Your task to perform on an android device: open app "The Home Depot" Image 0: 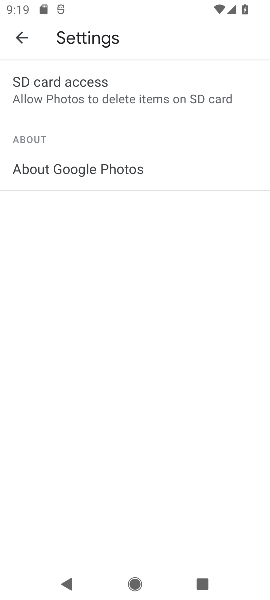
Step 0: press back button
Your task to perform on an android device: open app "The Home Depot" Image 1: 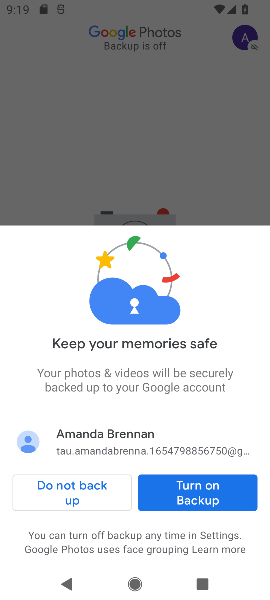
Step 1: press home button
Your task to perform on an android device: open app "The Home Depot" Image 2: 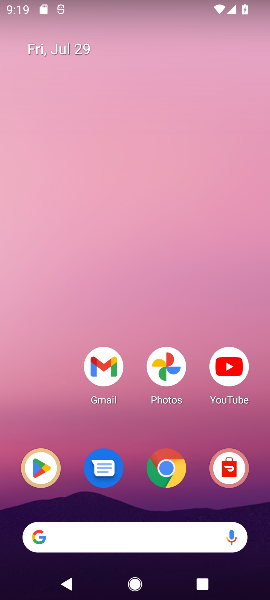
Step 2: click (36, 473)
Your task to perform on an android device: open app "The Home Depot" Image 3: 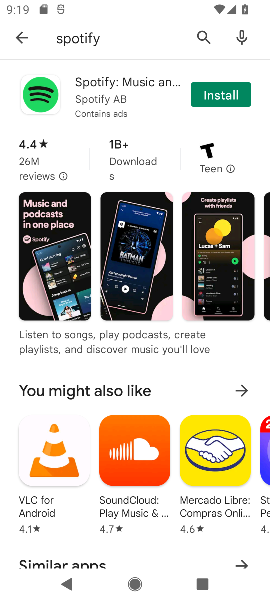
Step 3: click (205, 34)
Your task to perform on an android device: open app "The Home Depot" Image 4: 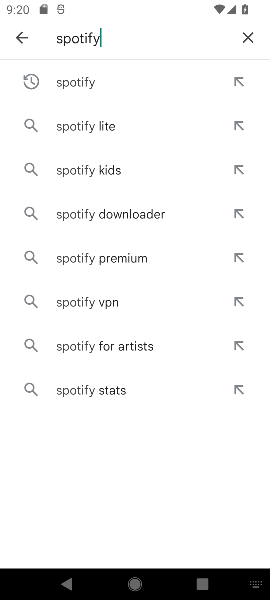
Step 4: click (255, 33)
Your task to perform on an android device: open app "The Home Depot" Image 5: 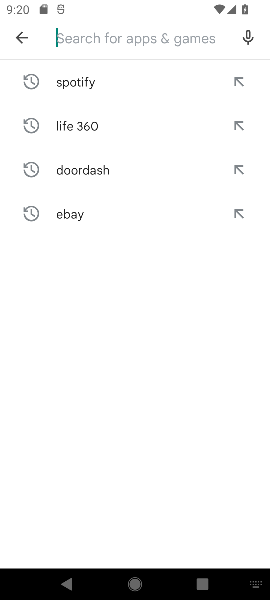
Step 5: click (99, 45)
Your task to perform on an android device: open app "The Home Depot" Image 6: 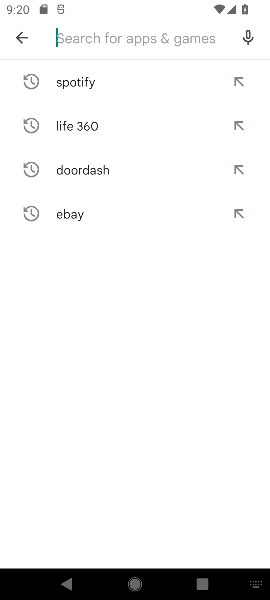
Step 6: type "the home depot"
Your task to perform on an android device: open app "The Home Depot" Image 7: 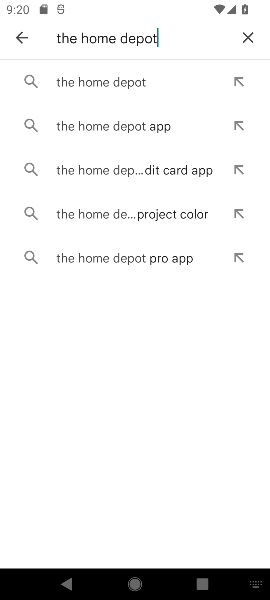
Step 7: click (117, 86)
Your task to perform on an android device: open app "The Home Depot" Image 8: 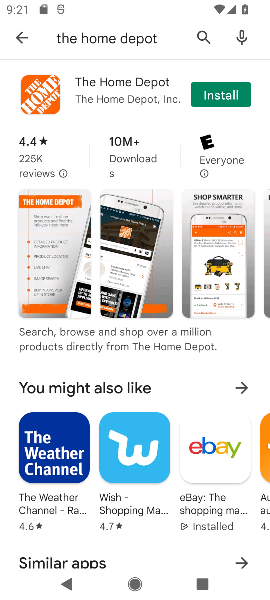
Step 8: task complete